Your task to perform on an android device: open app "Google Play Games" Image 0: 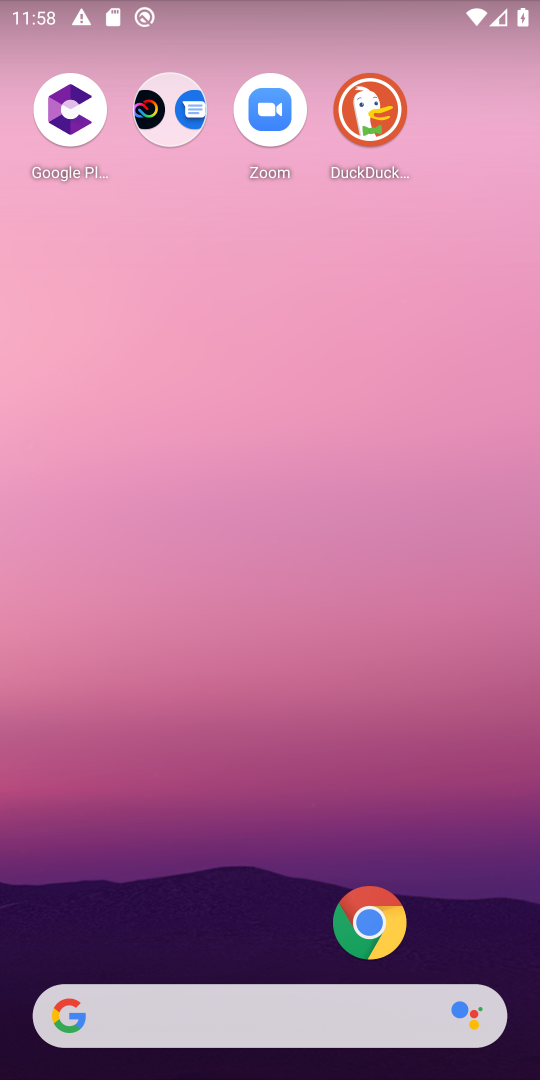
Step 0: drag from (257, 1002) to (310, 298)
Your task to perform on an android device: open app "Google Play Games" Image 1: 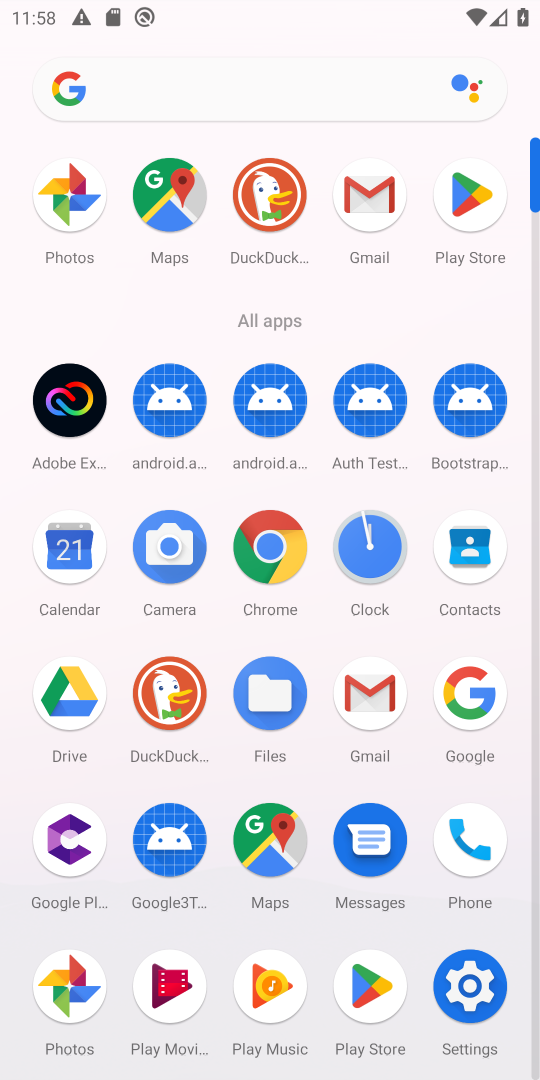
Step 1: click (466, 182)
Your task to perform on an android device: open app "Google Play Games" Image 2: 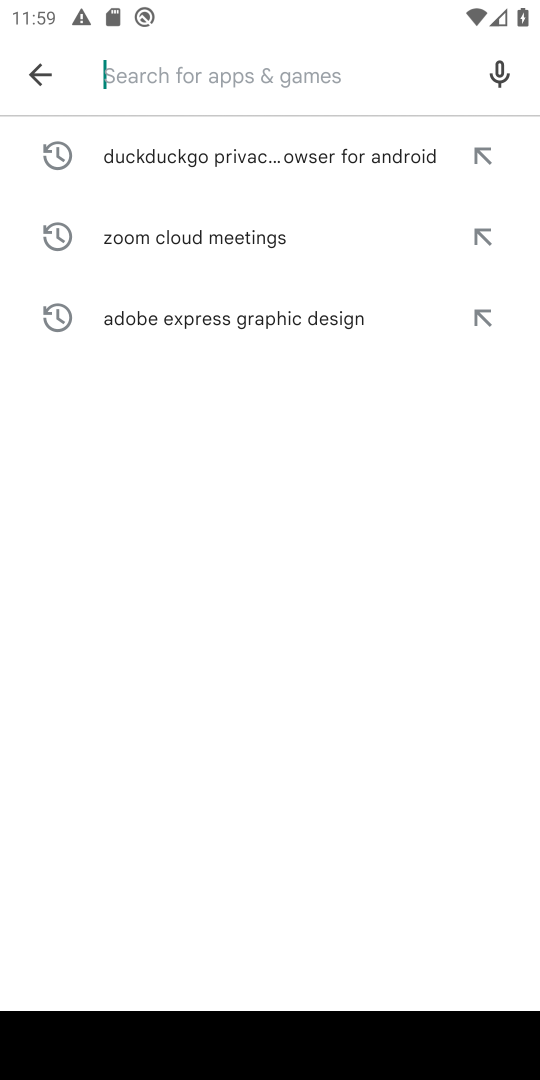
Step 2: type "Google Play Games"
Your task to perform on an android device: open app "Google Play Games" Image 3: 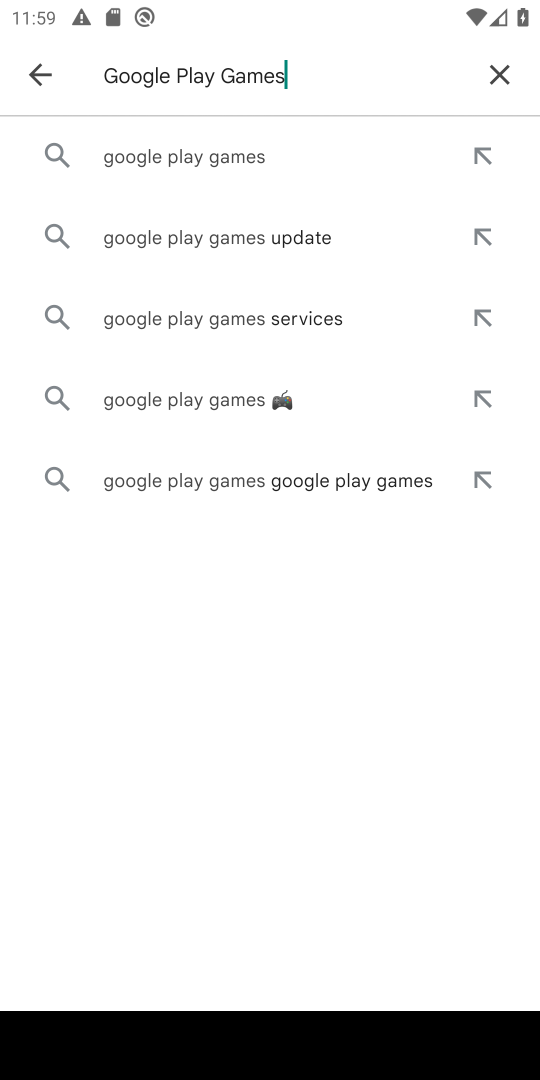
Step 3: click (159, 152)
Your task to perform on an android device: open app "Google Play Games" Image 4: 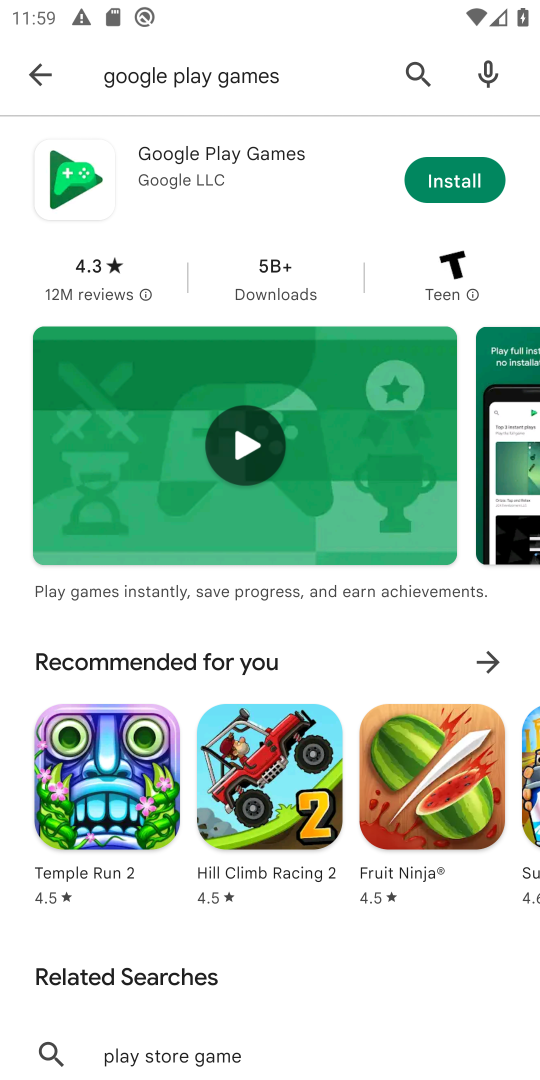
Step 4: click (461, 182)
Your task to perform on an android device: open app "Google Play Games" Image 5: 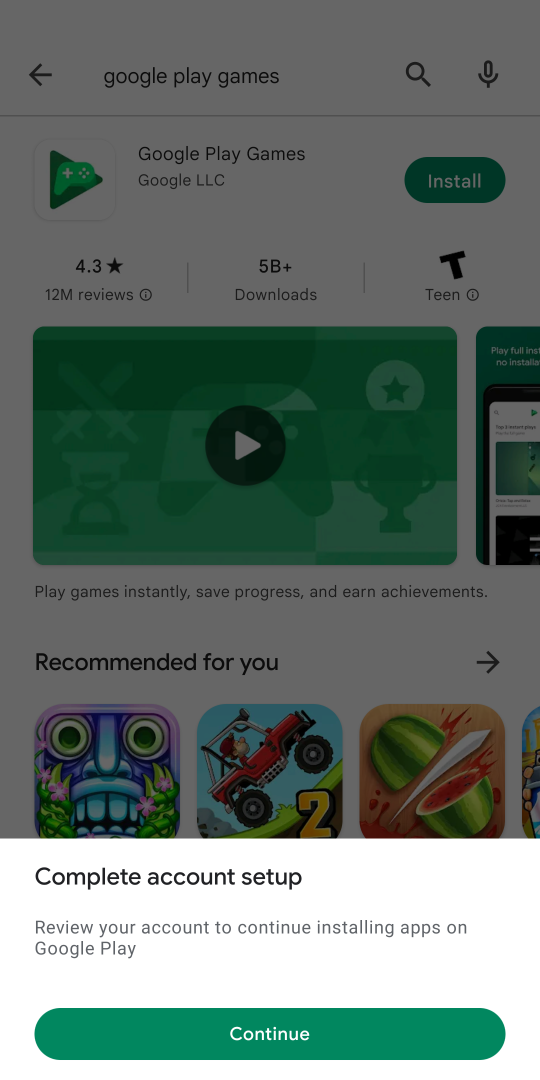
Step 5: click (259, 1042)
Your task to perform on an android device: open app "Google Play Games" Image 6: 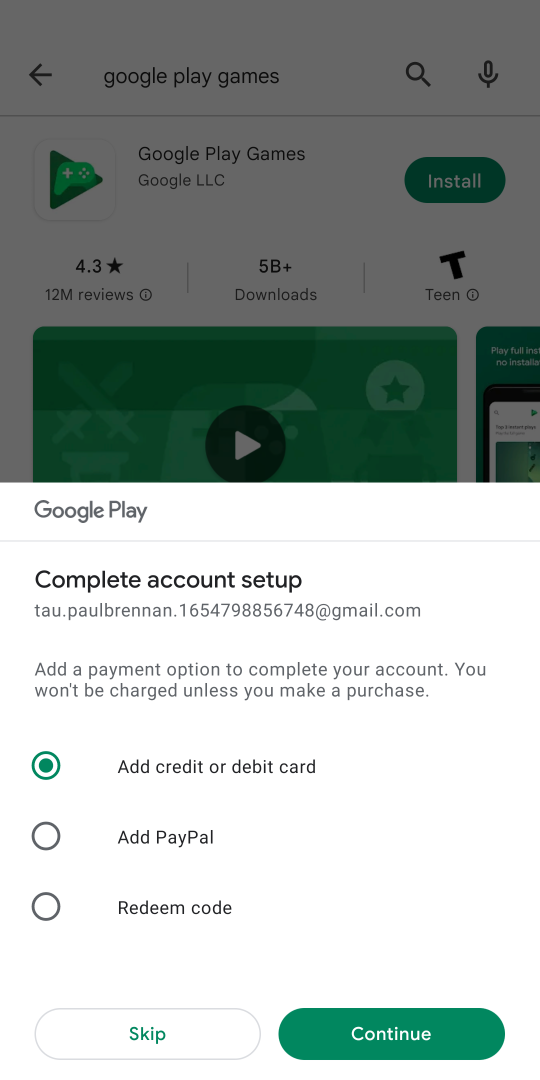
Step 6: click (174, 1032)
Your task to perform on an android device: open app "Google Play Games" Image 7: 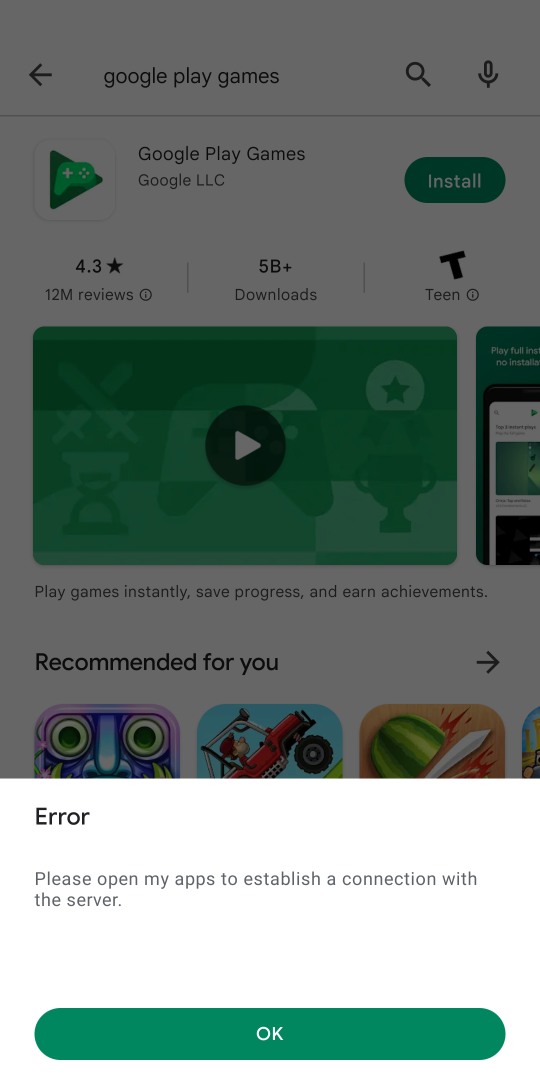
Step 7: click (251, 1042)
Your task to perform on an android device: open app "Google Play Games" Image 8: 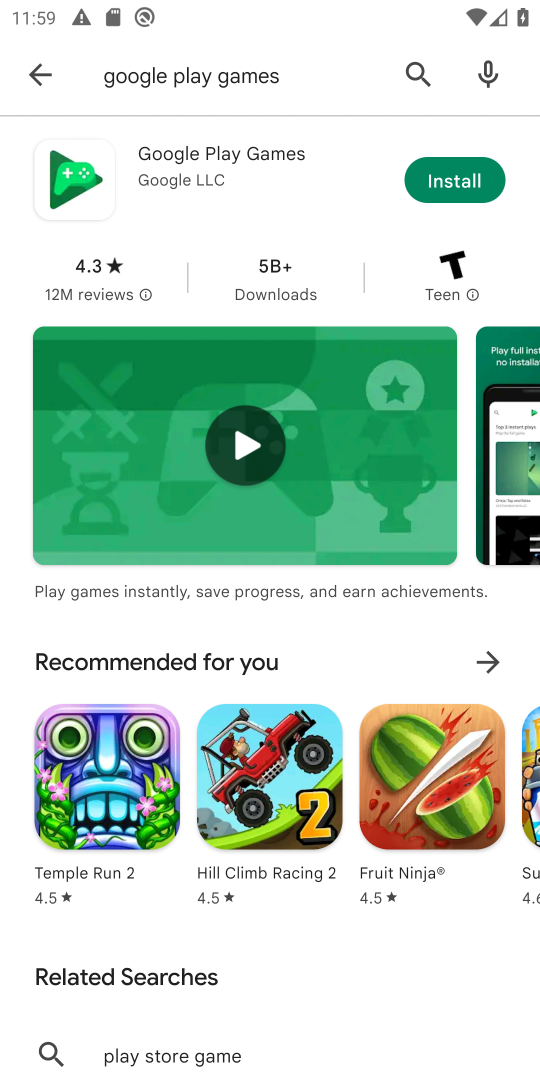
Step 8: click (446, 190)
Your task to perform on an android device: open app "Google Play Games" Image 9: 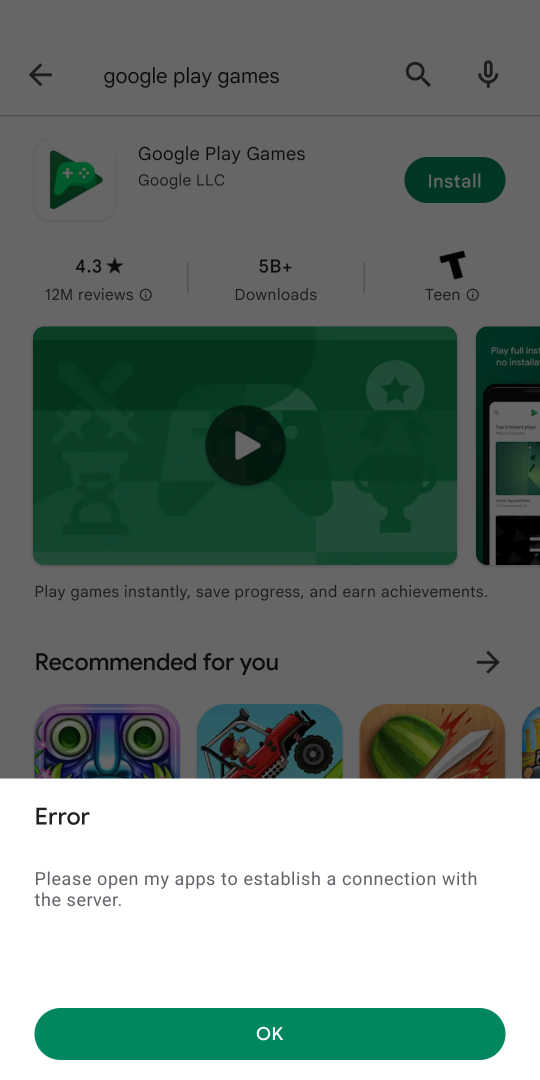
Step 9: task complete